Your task to perform on an android device: What's the news in Taiwan? Image 0: 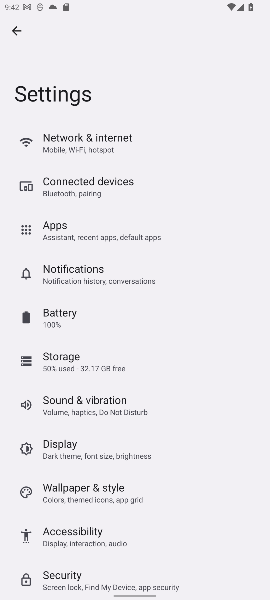
Step 0: press home button
Your task to perform on an android device: What's the news in Taiwan? Image 1: 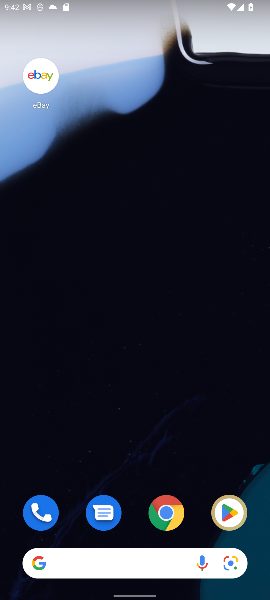
Step 1: click (150, 559)
Your task to perform on an android device: What's the news in Taiwan? Image 2: 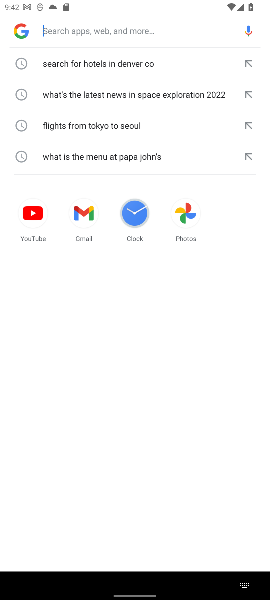
Step 2: type "What's the news in Taiwan?"
Your task to perform on an android device: What's the news in Taiwan? Image 3: 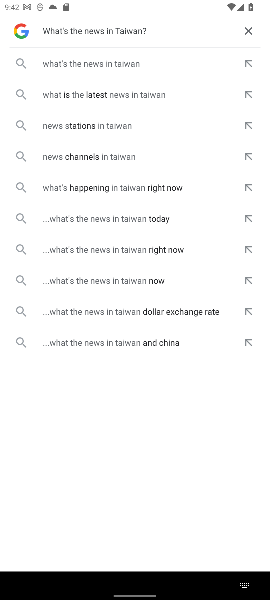
Step 3: type "acgfn bvc"
Your task to perform on an android device: What's the news in Taiwan? Image 4: 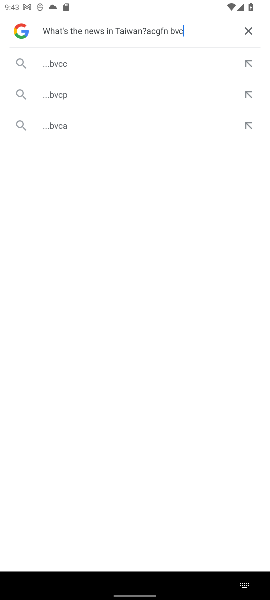
Step 4: click (79, 69)
Your task to perform on an android device: What's the news in Taiwan? Image 5: 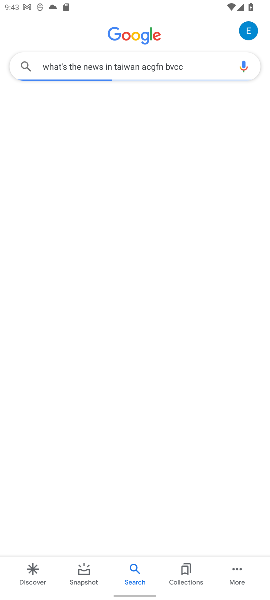
Step 5: click (56, 63)
Your task to perform on an android device: What's the news in Taiwan? Image 6: 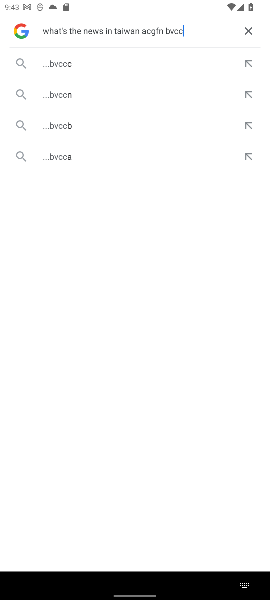
Step 6: click (57, 63)
Your task to perform on an android device: What's the news in Taiwan? Image 7: 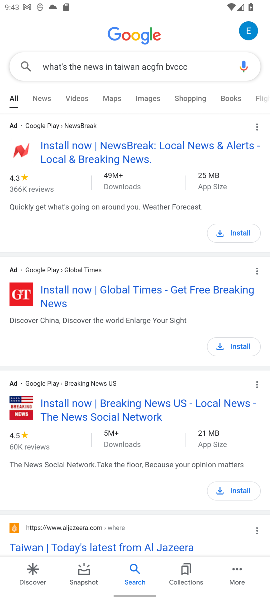
Step 7: task complete